Your task to perform on an android device: see sites visited before in the chrome app Image 0: 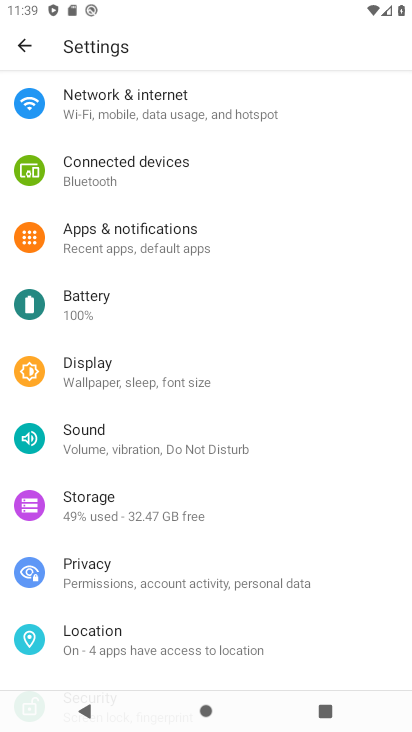
Step 0: drag from (118, 580) to (208, 147)
Your task to perform on an android device: see sites visited before in the chrome app Image 1: 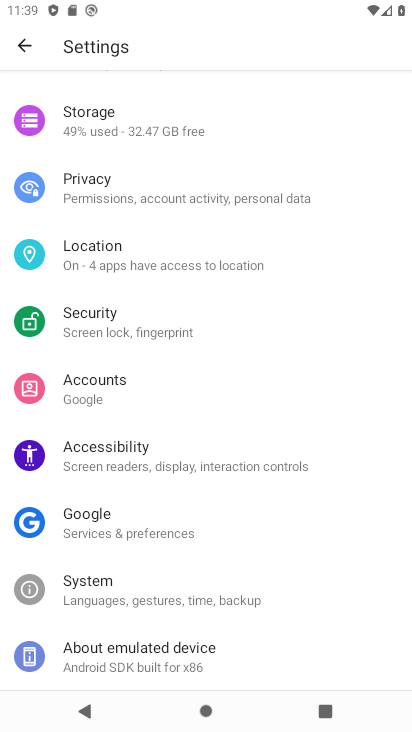
Step 1: press home button
Your task to perform on an android device: see sites visited before in the chrome app Image 2: 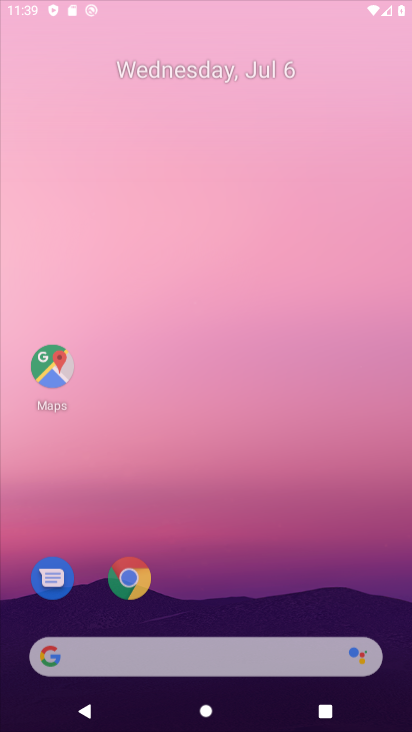
Step 2: drag from (190, 515) to (186, 3)
Your task to perform on an android device: see sites visited before in the chrome app Image 3: 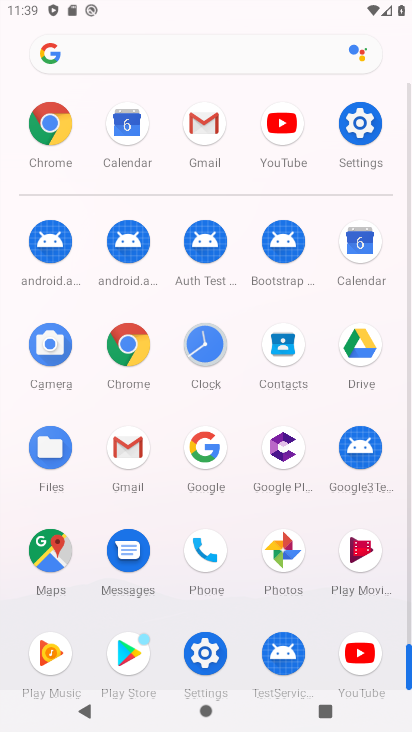
Step 3: click (123, 351)
Your task to perform on an android device: see sites visited before in the chrome app Image 4: 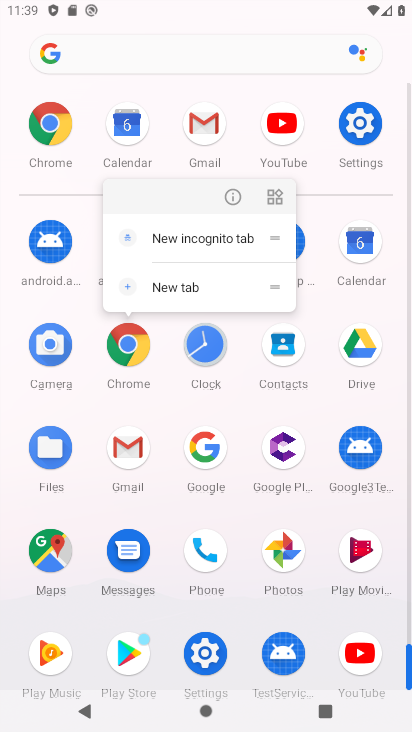
Step 4: click (232, 185)
Your task to perform on an android device: see sites visited before in the chrome app Image 5: 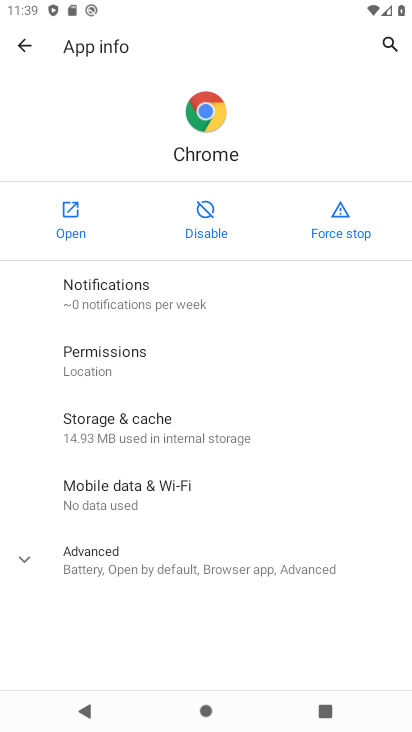
Step 5: click (59, 214)
Your task to perform on an android device: see sites visited before in the chrome app Image 6: 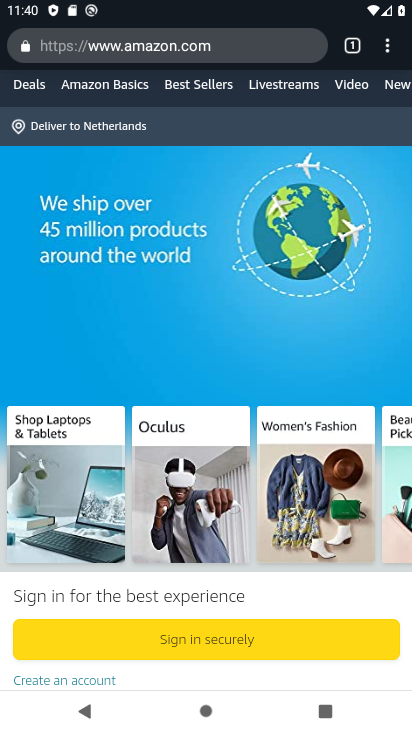
Step 6: drag from (100, 567) to (172, 228)
Your task to perform on an android device: see sites visited before in the chrome app Image 7: 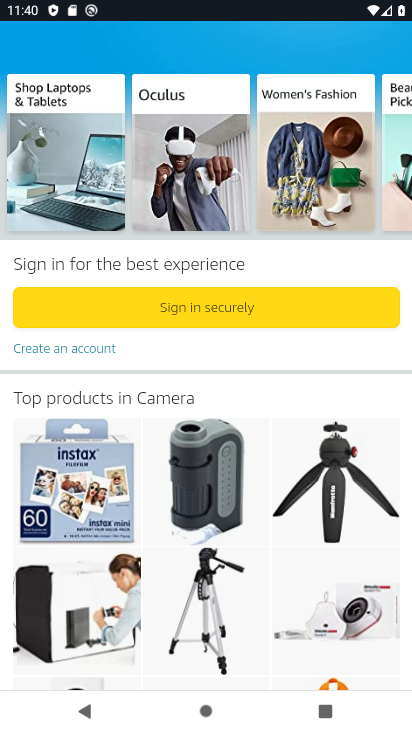
Step 7: drag from (140, 309) to (353, 725)
Your task to perform on an android device: see sites visited before in the chrome app Image 8: 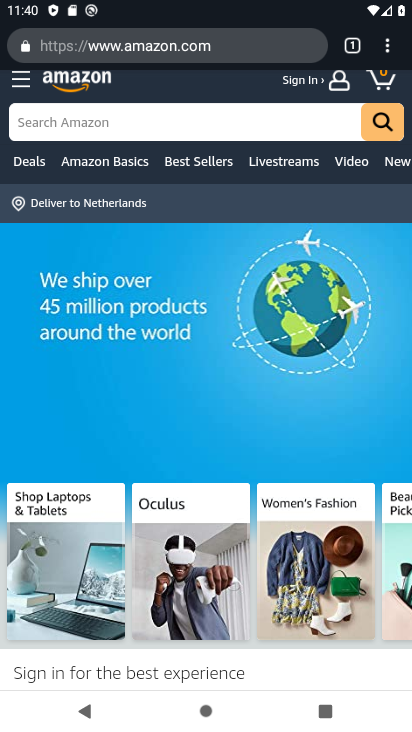
Step 8: click (384, 46)
Your task to perform on an android device: see sites visited before in the chrome app Image 9: 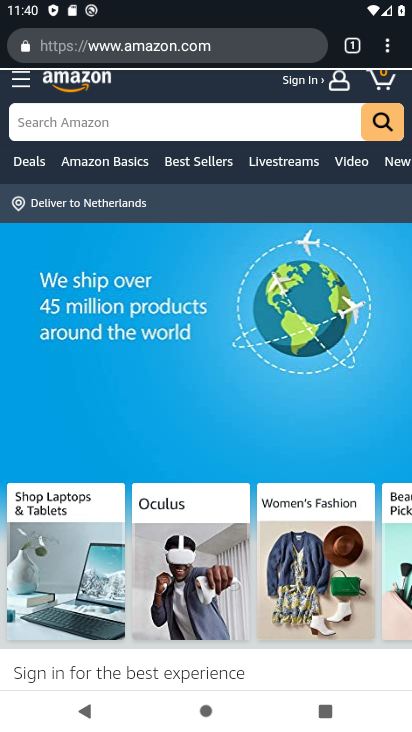
Step 9: click (384, 55)
Your task to perform on an android device: see sites visited before in the chrome app Image 10: 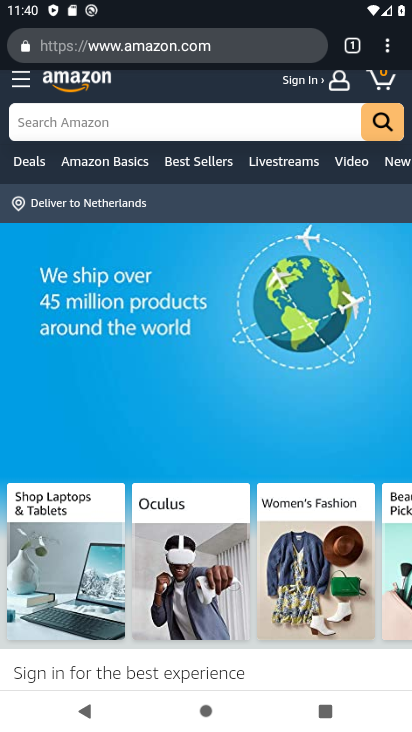
Step 10: drag from (384, 54) to (235, 248)
Your task to perform on an android device: see sites visited before in the chrome app Image 11: 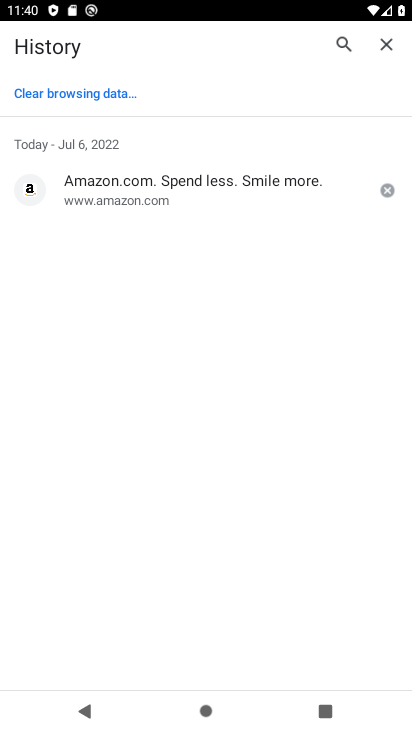
Step 11: drag from (120, 443) to (214, 362)
Your task to perform on an android device: see sites visited before in the chrome app Image 12: 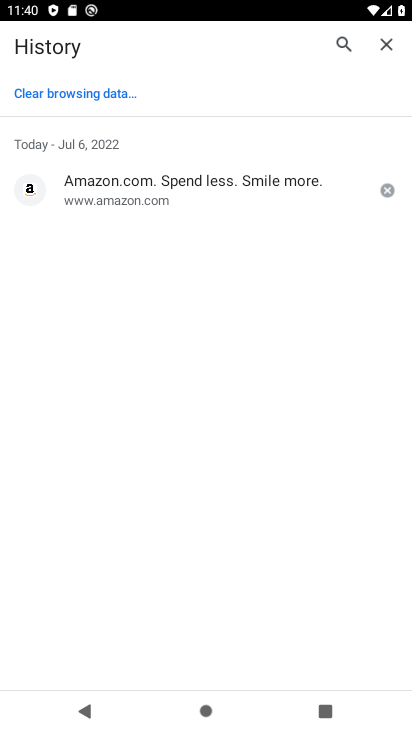
Step 12: click (177, 204)
Your task to perform on an android device: see sites visited before in the chrome app Image 13: 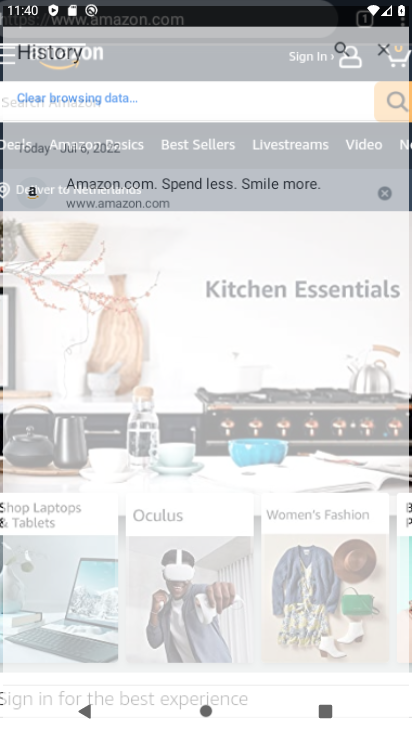
Step 13: task complete